Your task to perform on an android device: check out phone information Image 0: 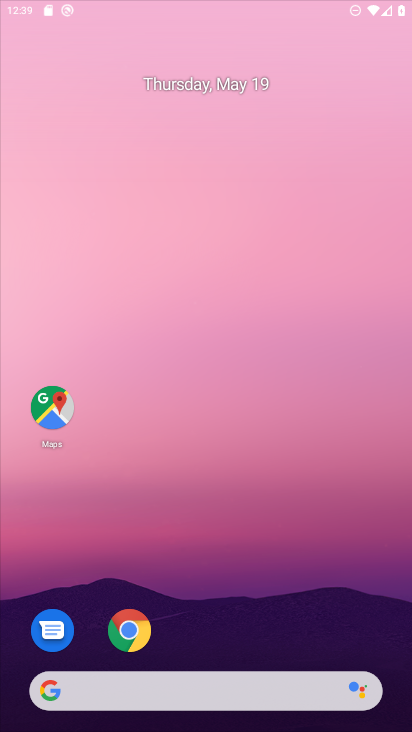
Step 0: click (329, 75)
Your task to perform on an android device: check out phone information Image 1: 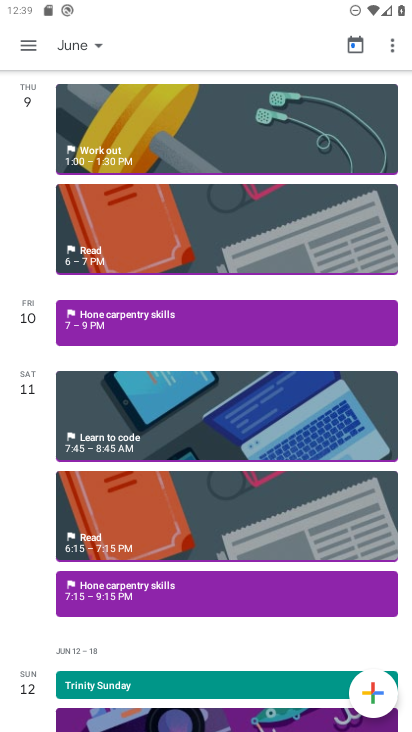
Step 1: drag from (214, 629) to (246, 252)
Your task to perform on an android device: check out phone information Image 2: 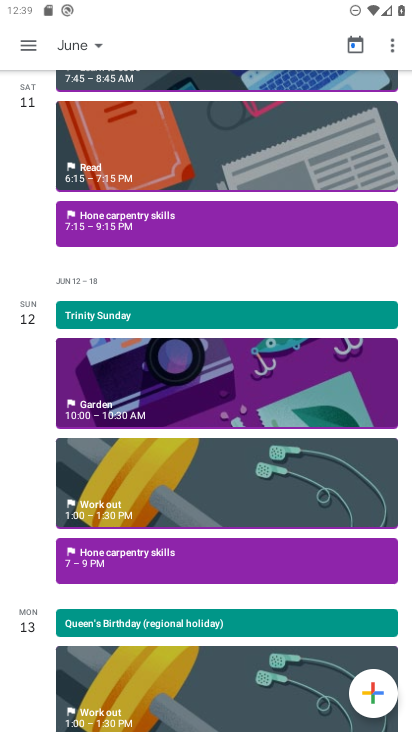
Step 2: press home button
Your task to perform on an android device: check out phone information Image 3: 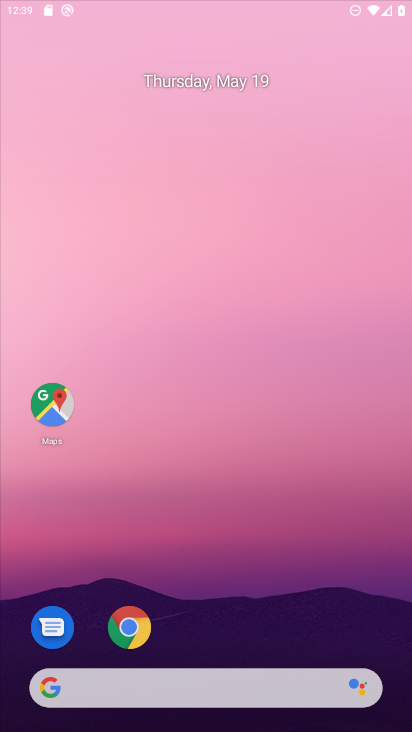
Step 3: drag from (179, 639) to (260, 138)
Your task to perform on an android device: check out phone information Image 4: 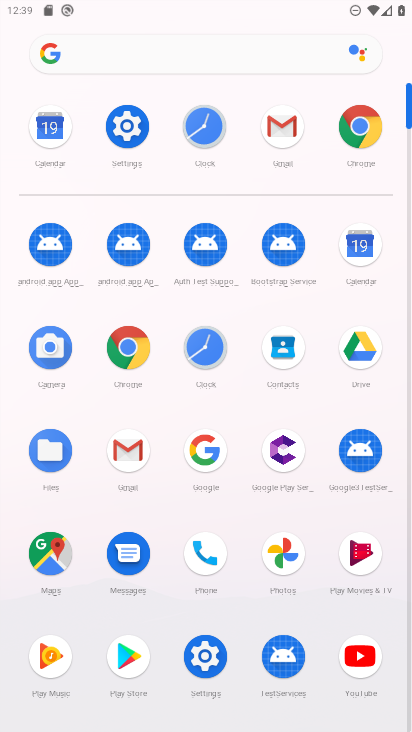
Step 4: click (123, 113)
Your task to perform on an android device: check out phone information Image 5: 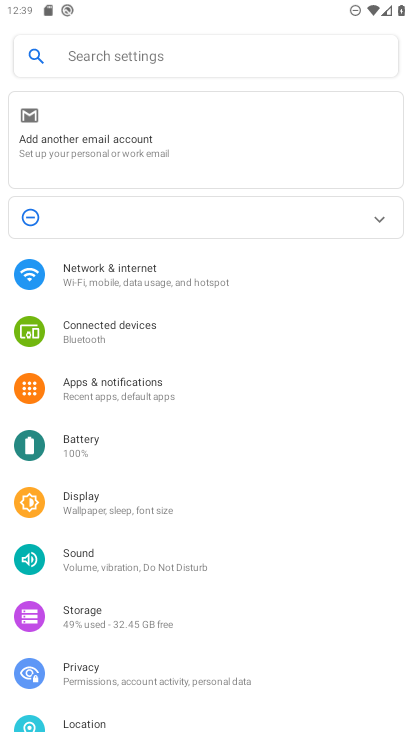
Step 5: drag from (212, 655) to (319, 33)
Your task to perform on an android device: check out phone information Image 6: 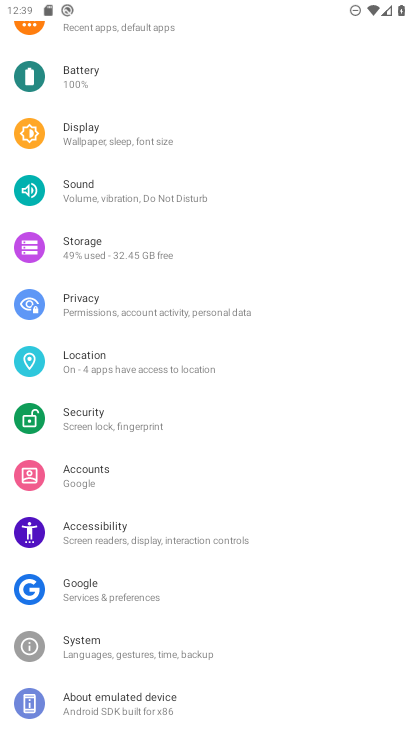
Step 6: drag from (209, 619) to (209, 140)
Your task to perform on an android device: check out phone information Image 7: 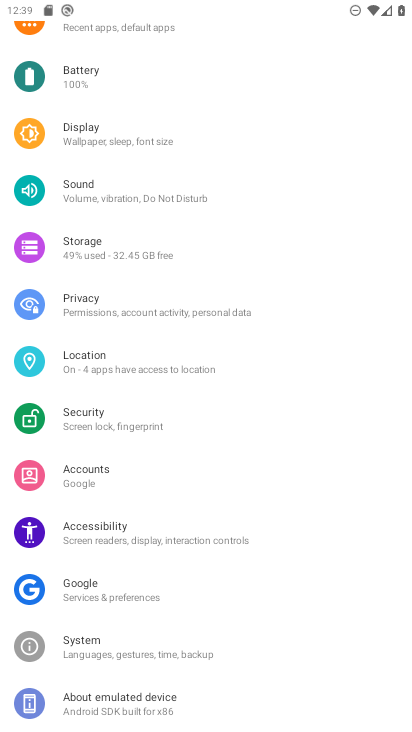
Step 7: click (160, 702)
Your task to perform on an android device: check out phone information Image 8: 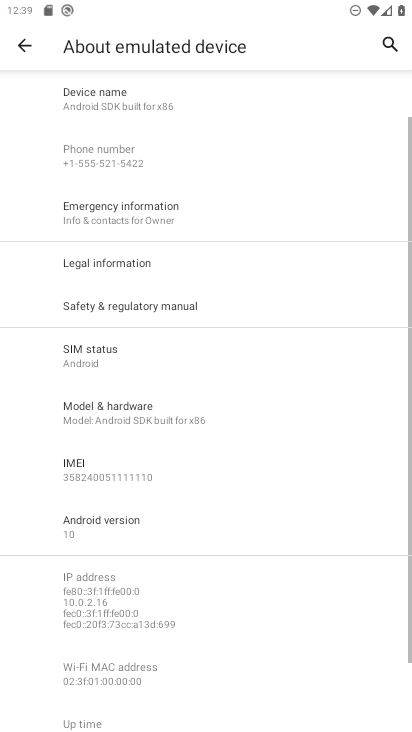
Step 8: task complete